Your task to perform on an android device: open sync settings in chrome Image 0: 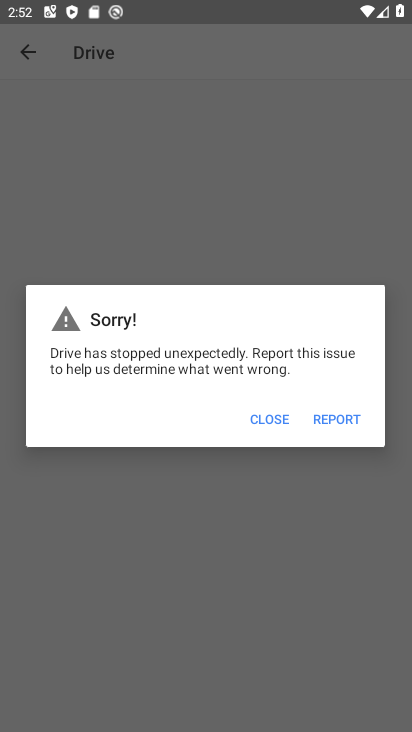
Step 0: press home button
Your task to perform on an android device: open sync settings in chrome Image 1: 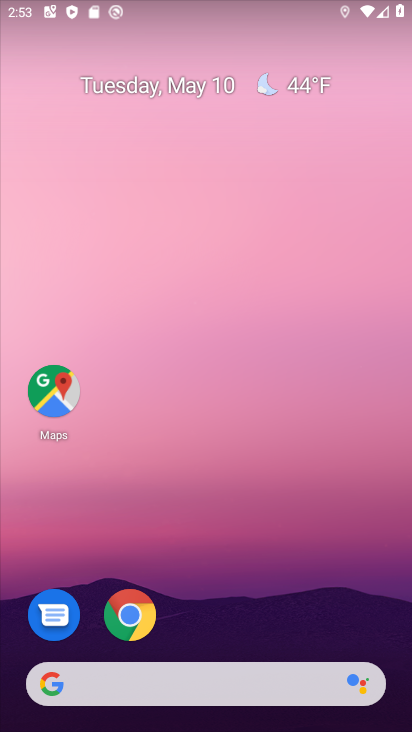
Step 1: click (133, 614)
Your task to perform on an android device: open sync settings in chrome Image 2: 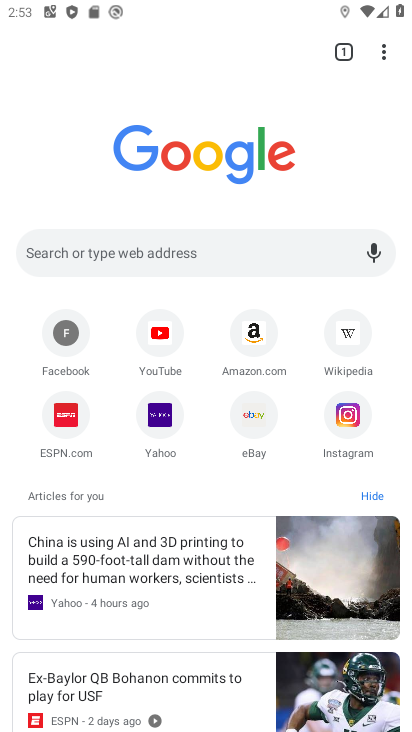
Step 2: click (383, 50)
Your task to perform on an android device: open sync settings in chrome Image 3: 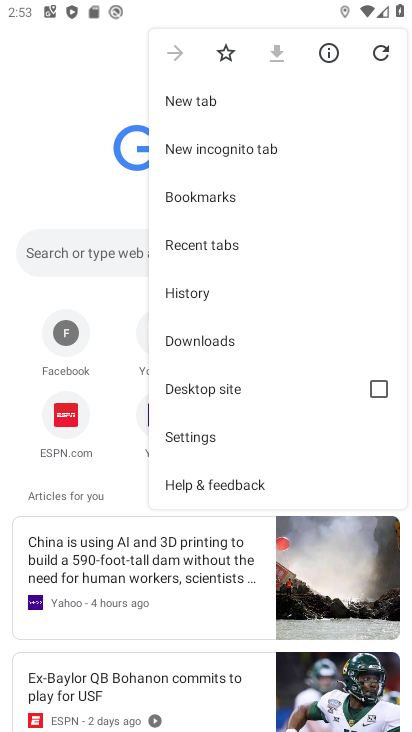
Step 3: click (174, 433)
Your task to perform on an android device: open sync settings in chrome Image 4: 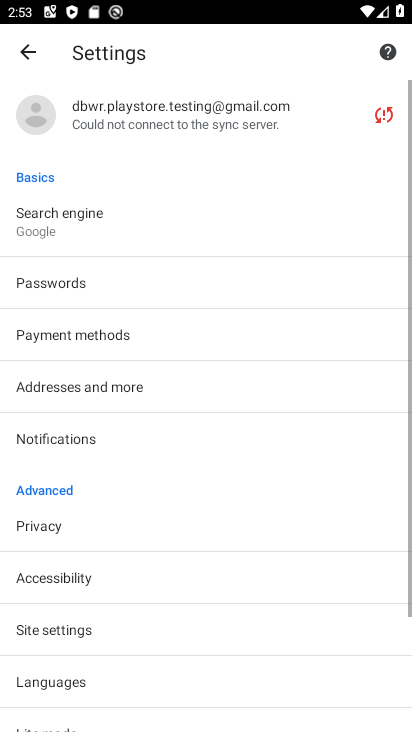
Step 4: drag from (161, 610) to (165, 170)
Your task to perform on an android device: open sync settings in chrome Image 5: 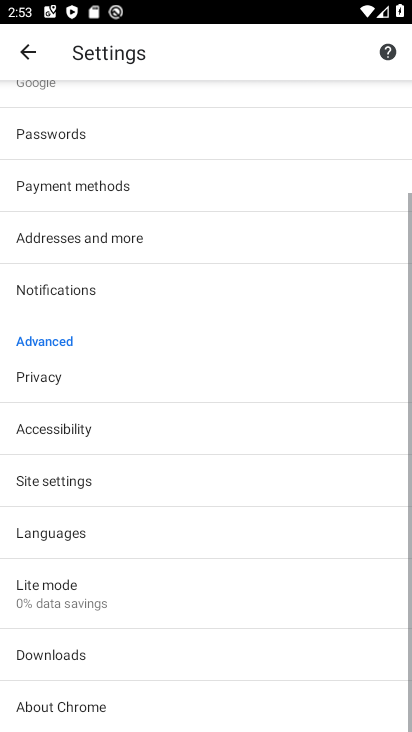
Step 5: click (53, 485)
Your task to perform on an android device: open sync settings in chrome Image 6: 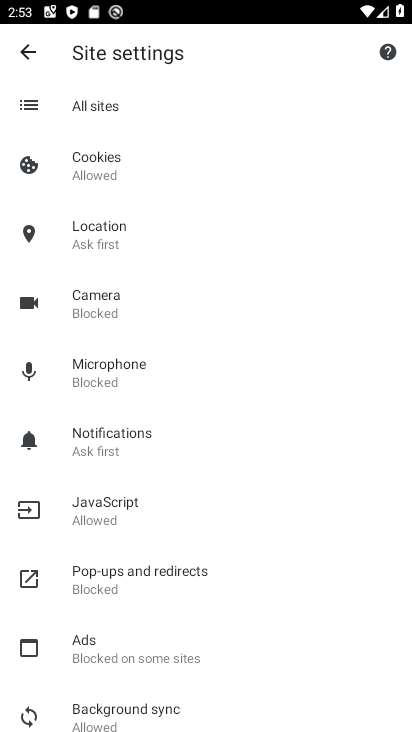
Step 6: drag from (168, 629) to (166, 391)
Your task to perform on an android device: open sync settings in chrome Image 7: 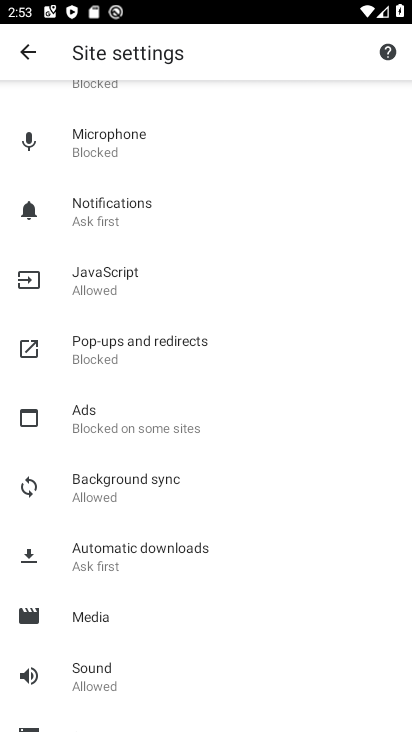
Step 7: click (117, 476)
Your task to perform on an android device: open sync settings in chrome Image 8: 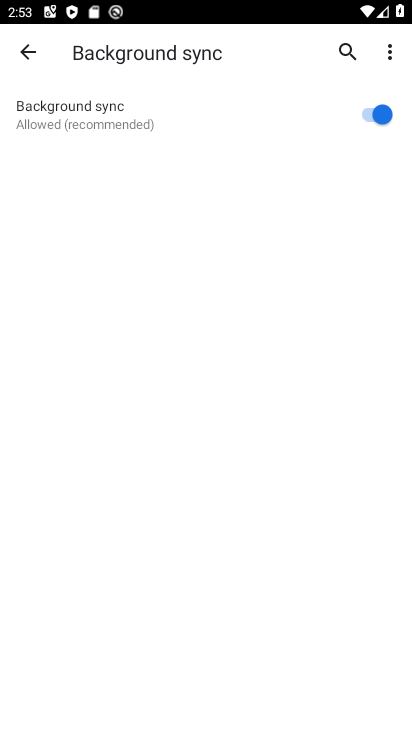
Step 8: task complete